Your task to perform on an android device: Open display settings Image 0: 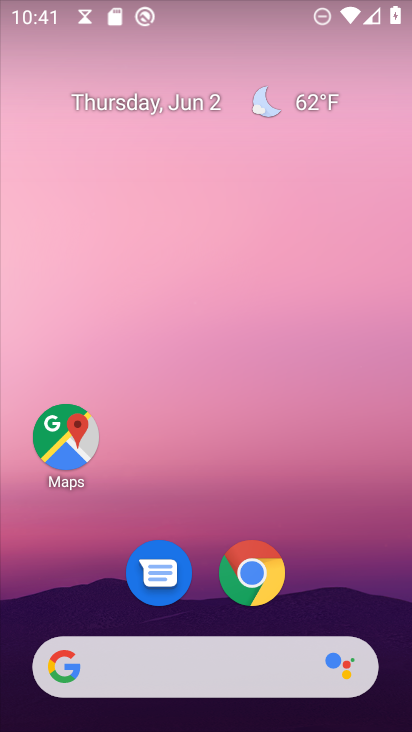
Step 0: drag from (331, 500) to (220, 86)
Your task to perform on an android device: Open display settings Image 1: 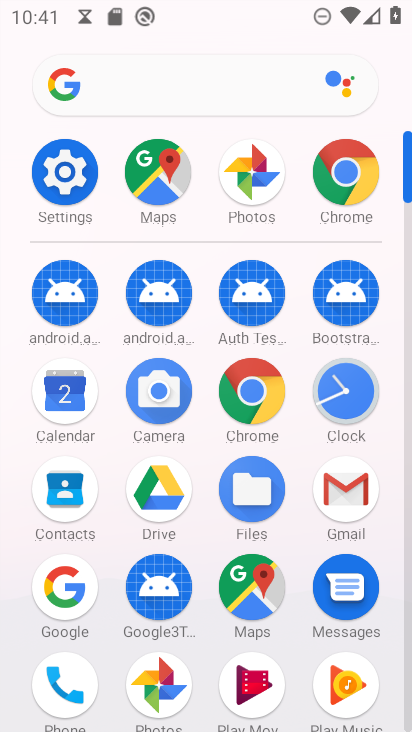
Step 1: click (64, 172)
Your task to perform on an android device: Open display settings Image 2: 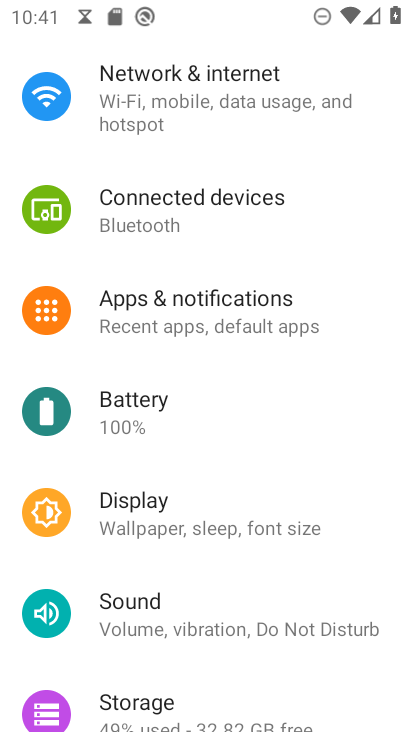
Step 2: click (140, 531)
Your task to perform on an android device: Open display settings Image 3: 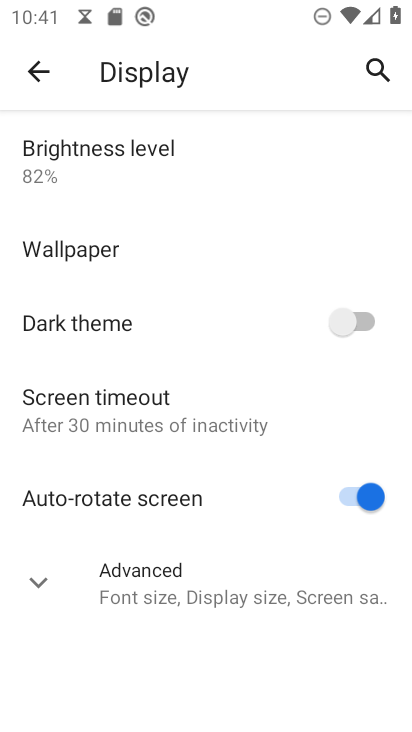
Step 3: task complete